Your task to perform on an android device: Open calendar and show me the third week of next month Image 0: 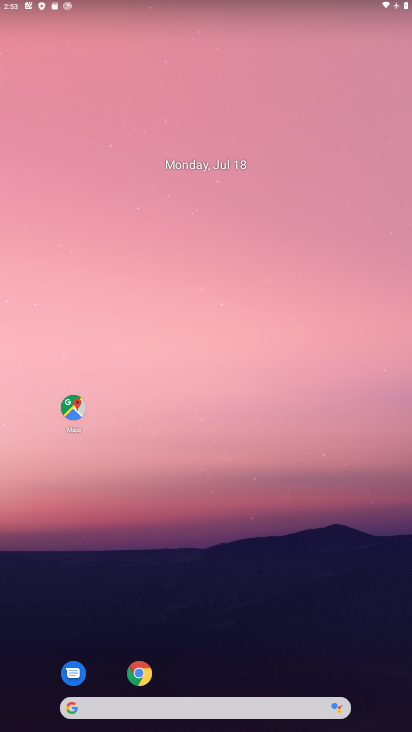
Step 0: drag from (258, 545) to (252, 105)
Your task to perform on an android device: Open calendar and show me the third week of next month Image 1: 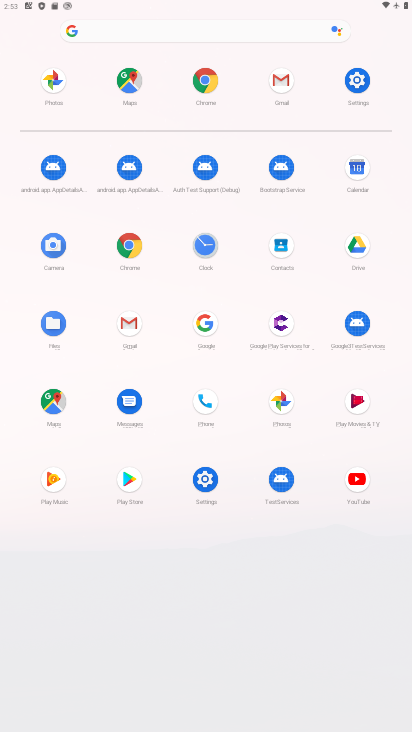
Step 1: click (350, 171)
Your task to perform on an android device: Open calendar and show me the third week of next month Image 2: 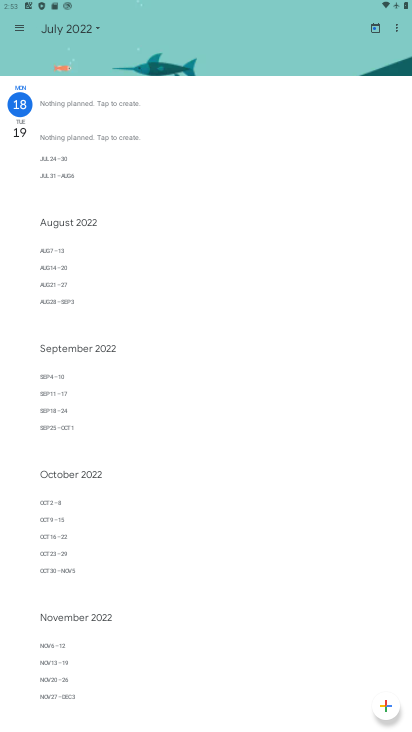
Step 2: click (15, 21)
Your task to perform on an android device: Open calendar and show me the third week of next month Image 3: 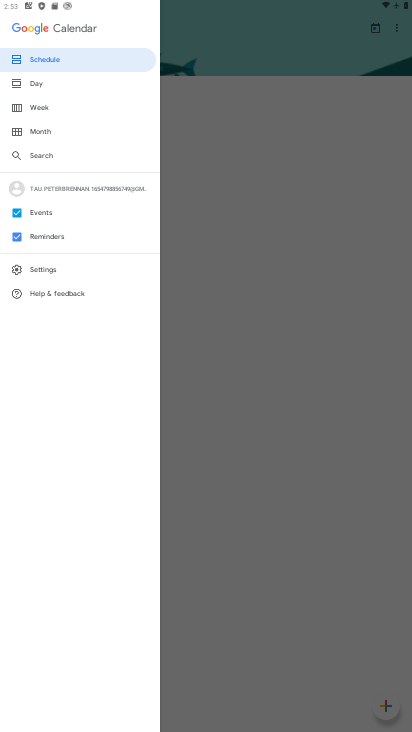
Step 3: click (40, 108)
Your task to perform on an android device: Open calendar and show me the third week of next month Image 4: 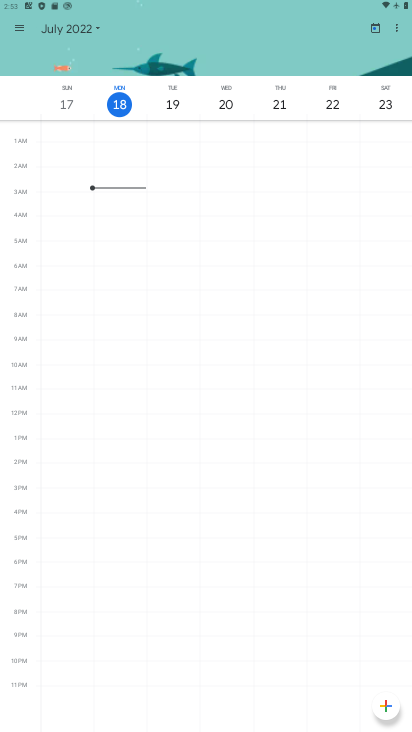
Step 4: drag from (365, 313) to (75, 118)
Your task to perform on an android device: Open calendar and show me the third week of next month Image 5: 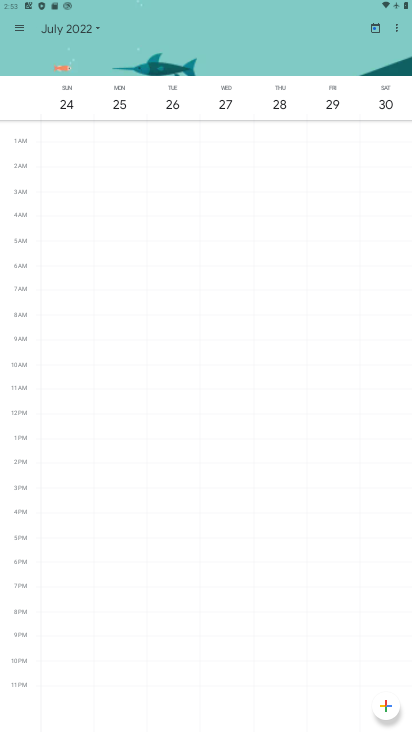
Step 5: click (13, 30)
Your task to perform on an android device: Open calendar and show me the third week of next month Image 6: 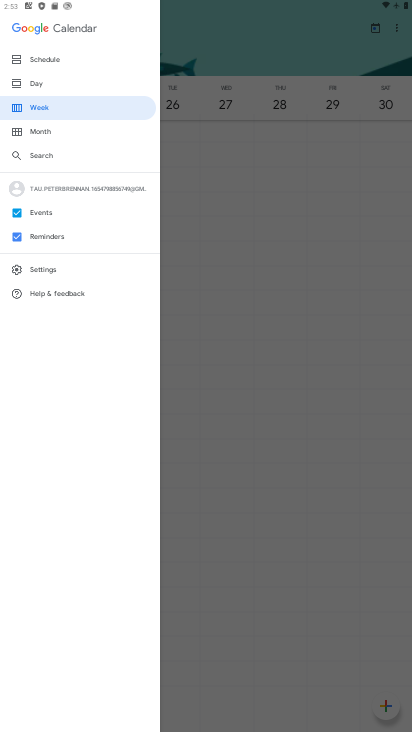
Step 6: click (297, 240)
Your task to perform on an android device: Open calendar and show me the third week of next month Image 7: 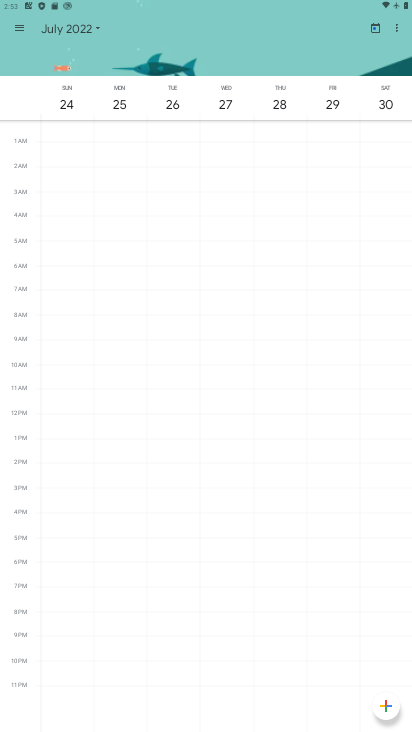
Step 7: drag from (177, 243) to (39, 213)
Your task to perform on an android device: Open calendar and show me the third week of next month Image 8: 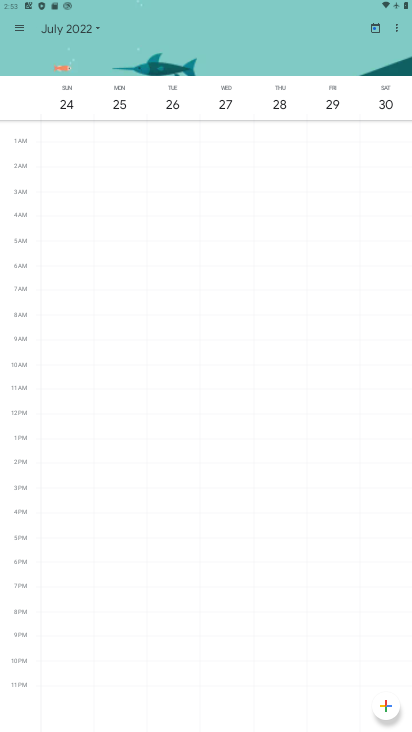
Step 8: drag from (36, 166) to (0, 167)
Your task to perform on an android device: Open calendar and show me the third week of next month Image 9: 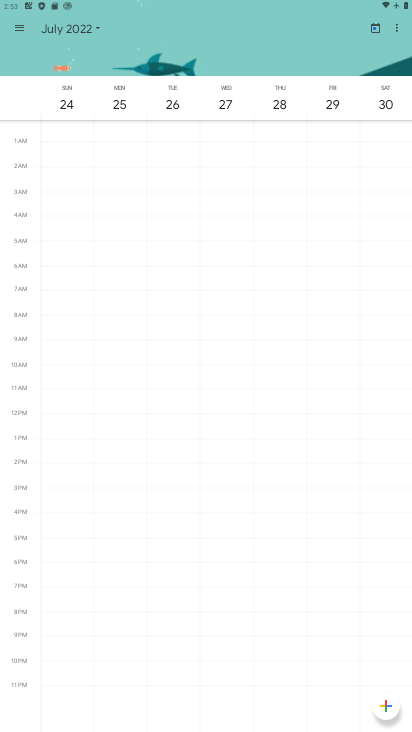
Step 9: drag from (182, 105) to (30, 92)
Your task to perform on an android device: Open calendar and show me the third week of next month Image 10: 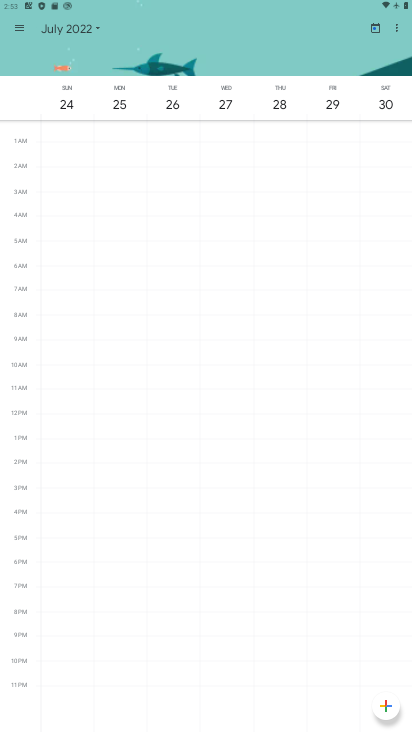
Step 10: drag from (299, 116) to (3, 1)
Your task to perform on an android device: Open calendar and show me the third week of next month Image 11: 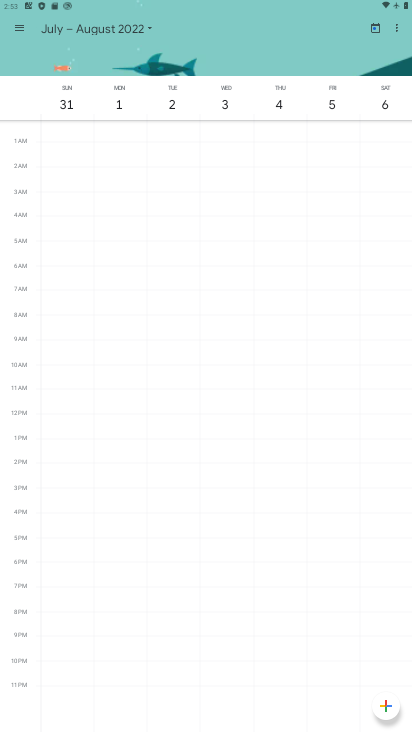
Step 11: click (7, 27)
Your task to perform on an android device: Open calendar and show me the third week of next month Image 12: 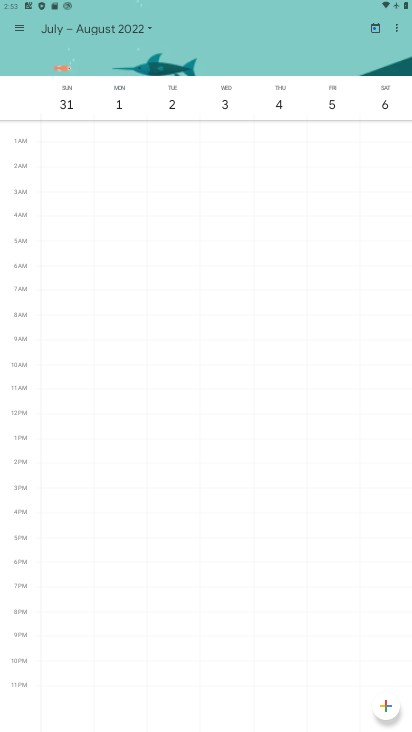
Step 12: click (27, 22)
Your task to perform on an android device: Open calendar and show me the third week of next month Image 13: 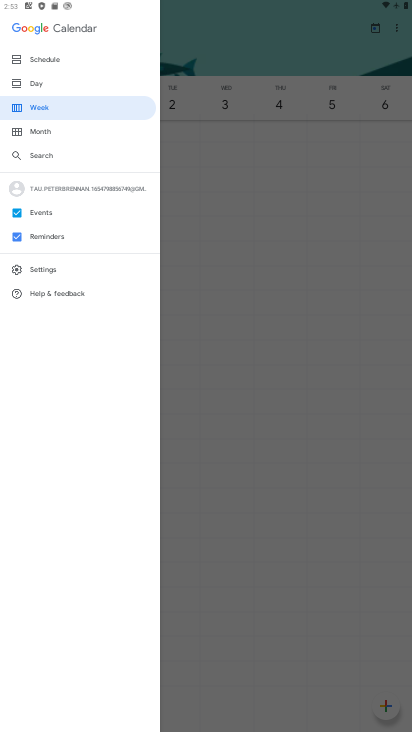
Step 13: click (35, 135)
Your task to perform on an android device: Open calendar and show me the third week of next month Image 14: 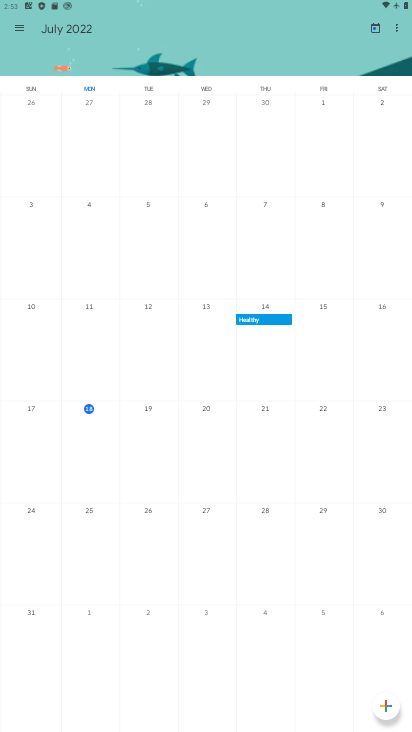
Step 14: drag from (300, 305) to (2, 202)
Your task to perform on an android device: Open calendar and show me the third week of next month Image 15: 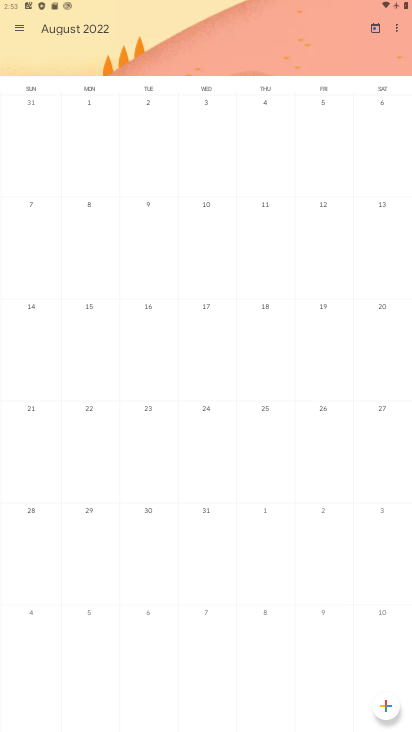
Step 15: click (18, 26)
Your task to perform on an android device: Open calendar and show me the third week of next month Image 16: 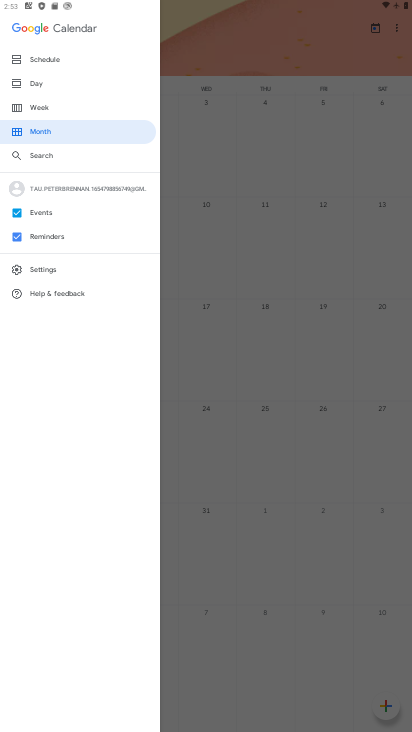
Step 16: click (55, 107)
Your task to perform on an android device: Open calendar and show me the third week of next month Image 17: 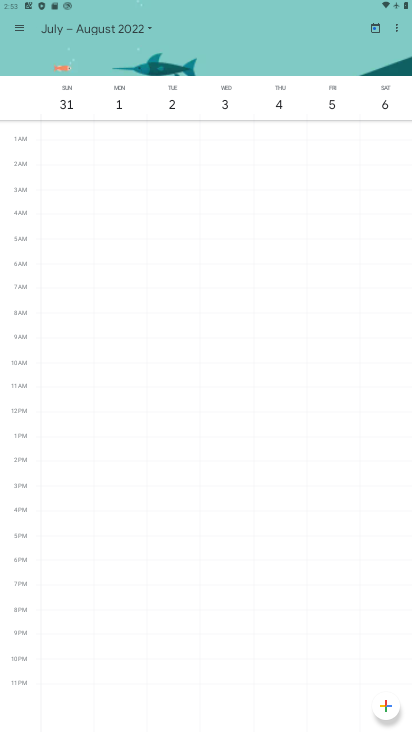
Step 17: task complete